Your task to perform on an android device: turn off notifications settings in the gmail app Image 0: 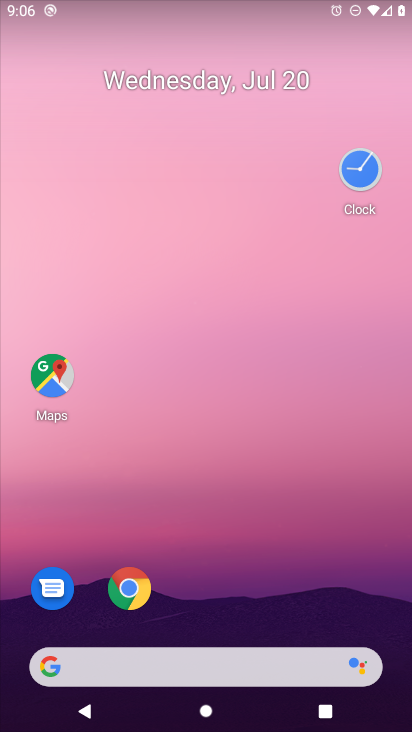
Step 0: drag from (44, 651) to (166, 204)
Your task to perform on an android device: turn off notifications settings in the gmail app Image 1: 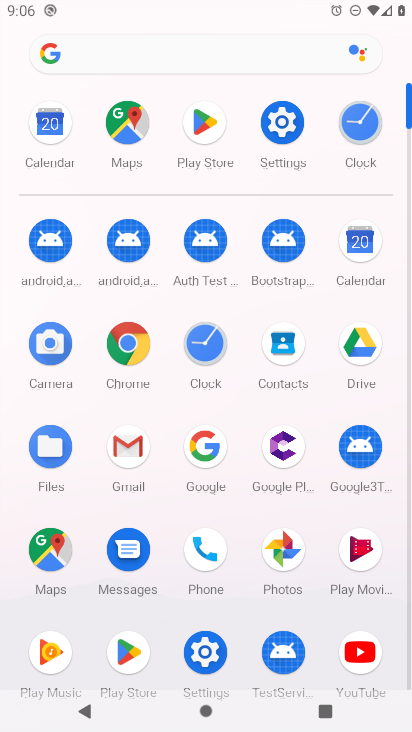
Step 1: click (211, 647)
Your task to perform on an android device: turn off notifications settings in the gmail app Image 2: 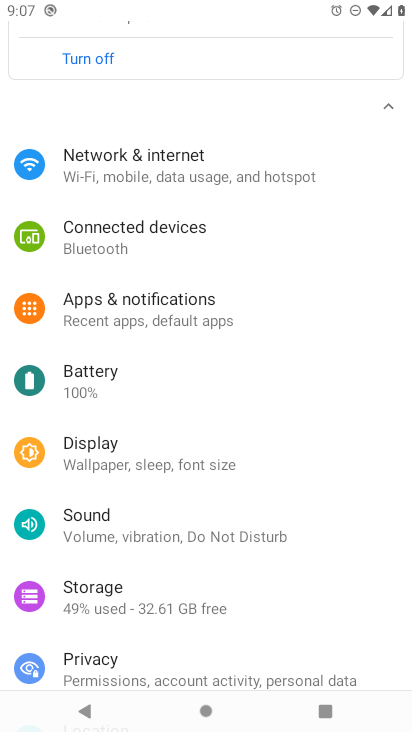
Step 2: click (124, 299)
Your task to perform on an android device: turn off notifications settings in the gmail app Image 3: 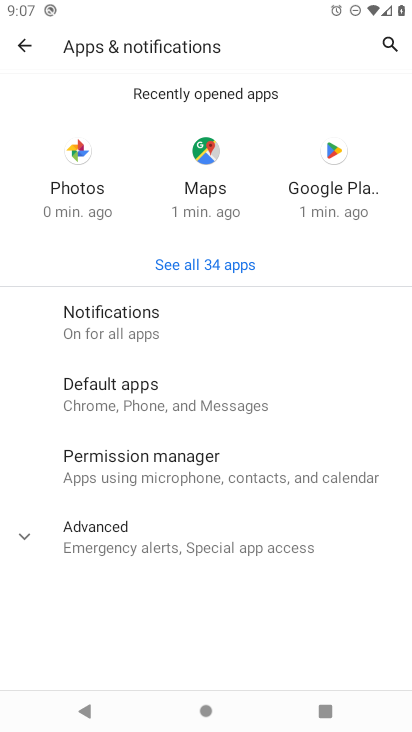
Step 3: click (110, 326)
Your task to perform on an android device: turn off notifications settings in the gmail app Image 4: 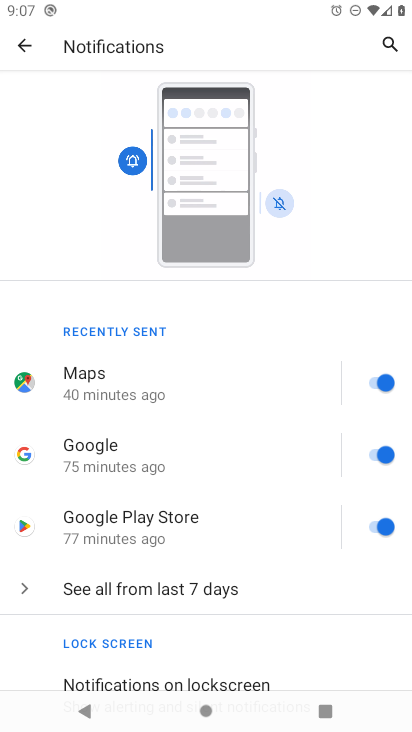
Step 4: task complete